Your task to perform on an android device: Open CNN.com Image 0: 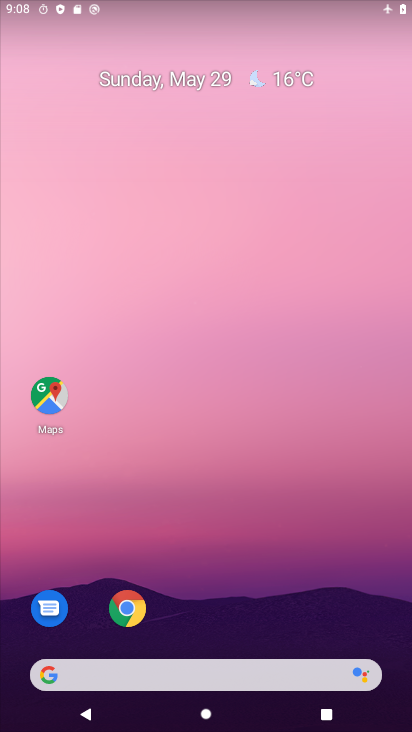
Step 0: click (137, 601)
Your task to perform on an android device: Open CNN.com Image 1: 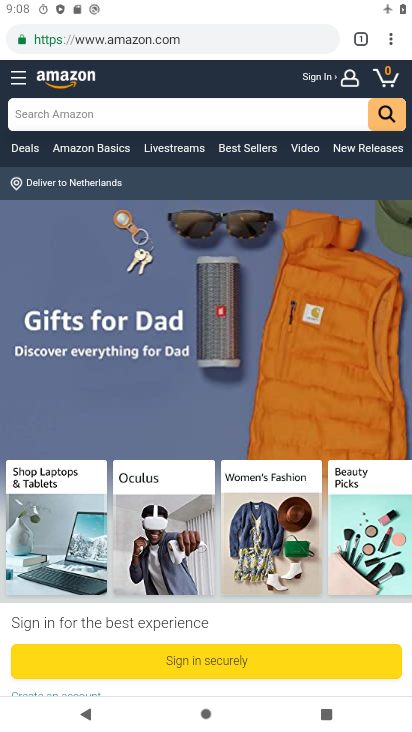
Step 1: click (146, 46)
Your task to perform on an android device: Open CNN.com Image 2: 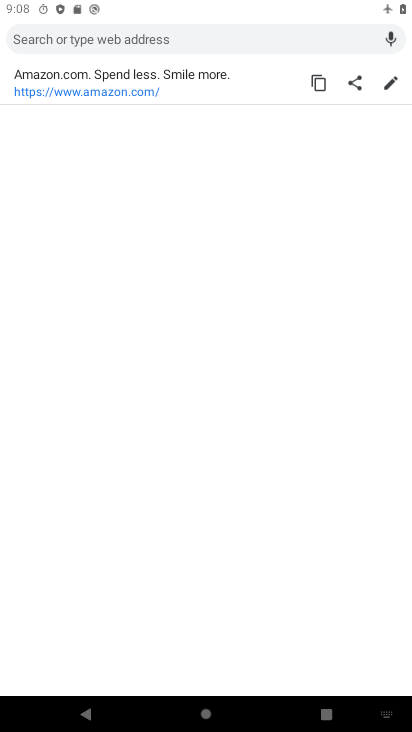
Step 2: type "www.cnn.com"
Your task to perform on an android device: Open CNN.com Image 3: 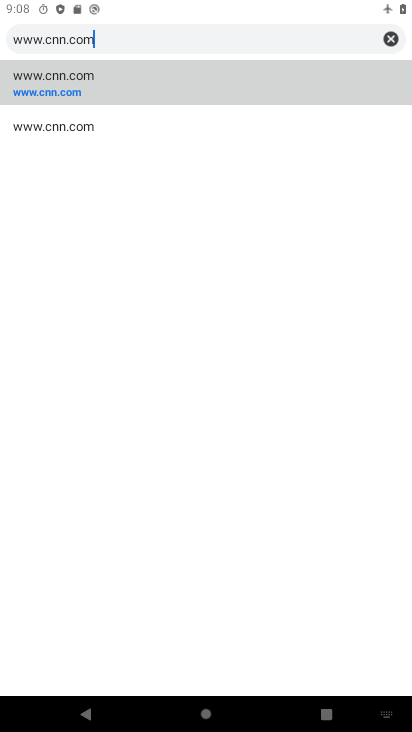
Step 3: click (53, 89)
Your task to perform on an android device: Open CNN.com Image 4: 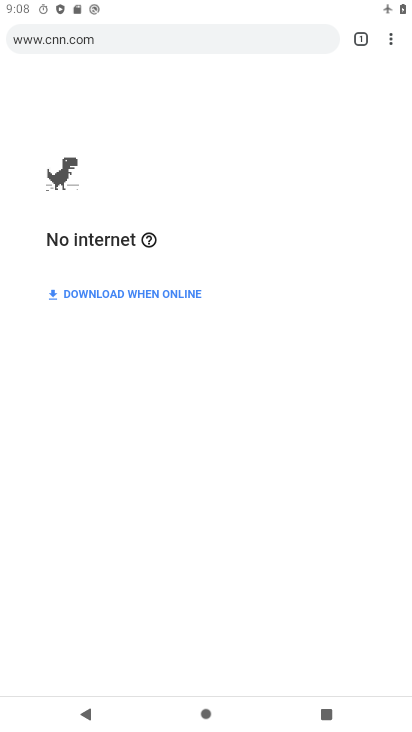
Step 4: task complete